Your task to perform on an android device: Search for "razer deathadder" on bestbuy.com, select the first entry, add it to the cart, then select checkout. Image 0: 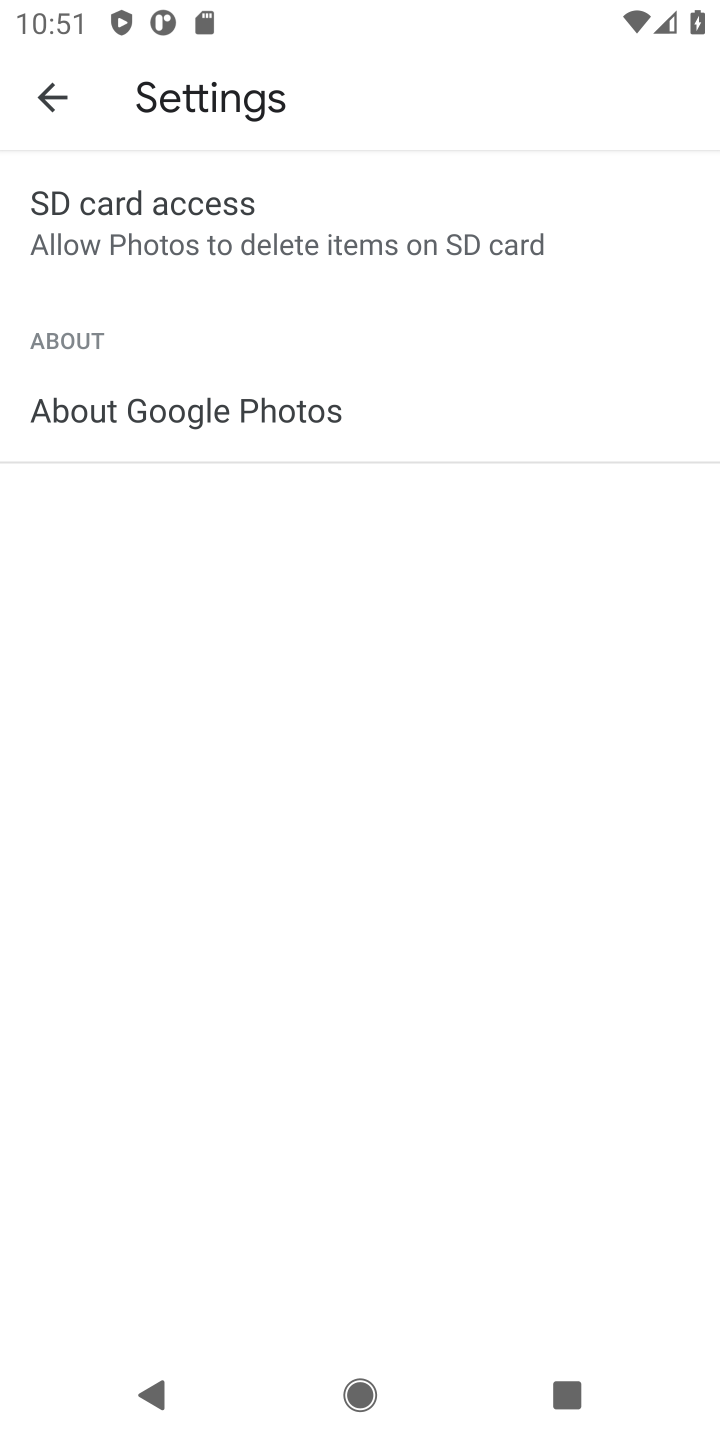
Step 0: press home button
Your task to perform on an android device: Search for "razer deathadder" on bestbuy.com, select the first entry, add it to the cart, then select checkout. Image 1: 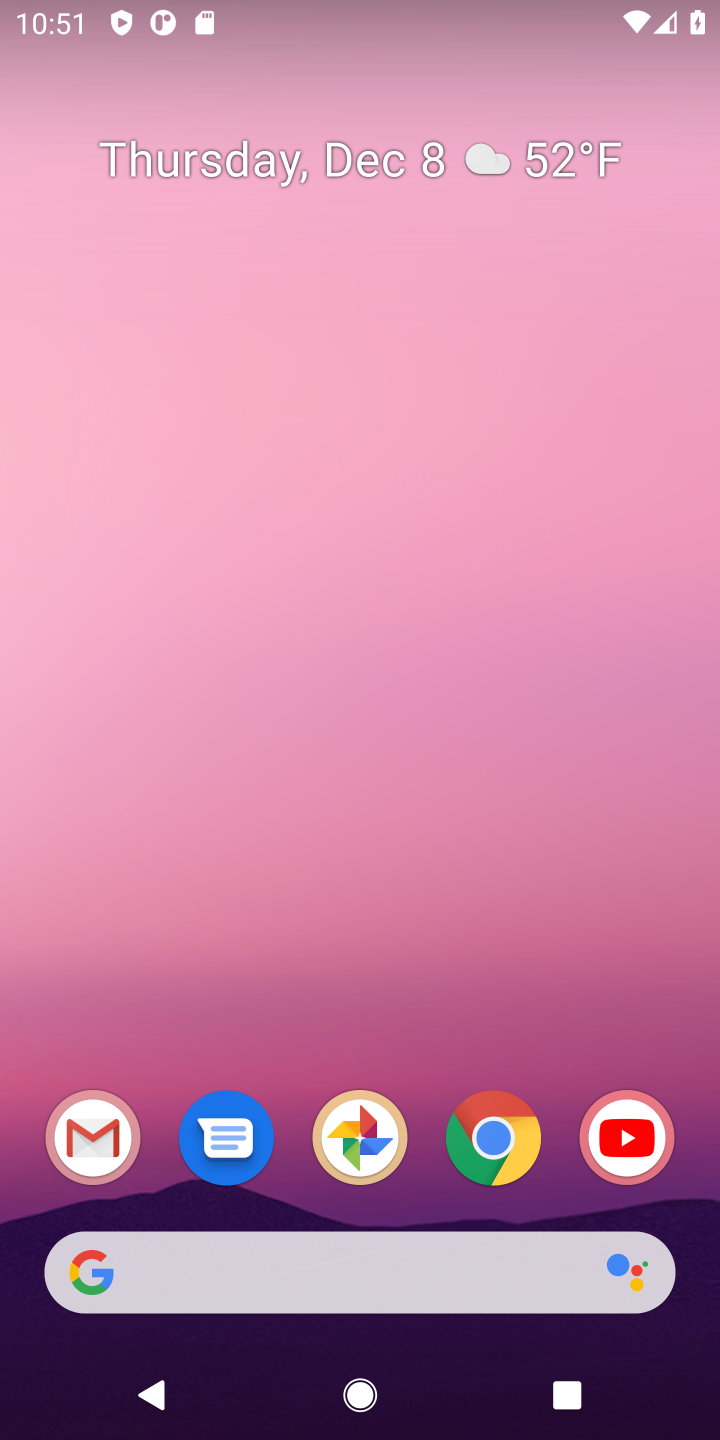
Step 1: click (499, 1118)
Your task to perform on an android device: Search for "razer deathadder" on bestbuy.com, select the first entry, add it to the cart, then select checkout. Image 2: 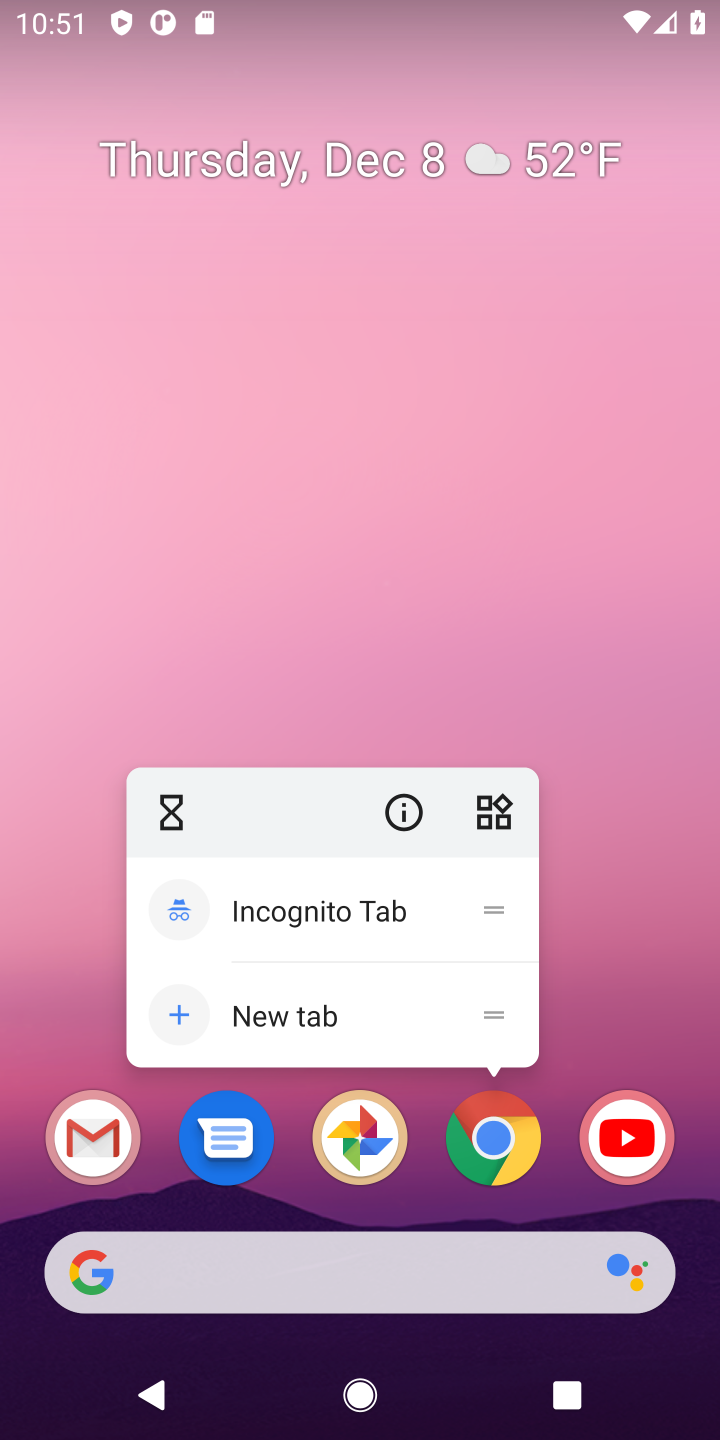
Step 2: click (499, 1118)
Your task to perform on an android device: Search for "razer deathadder" on bestbuy.com, select the first entry, add it to the cart, then select checkout. Image 3: 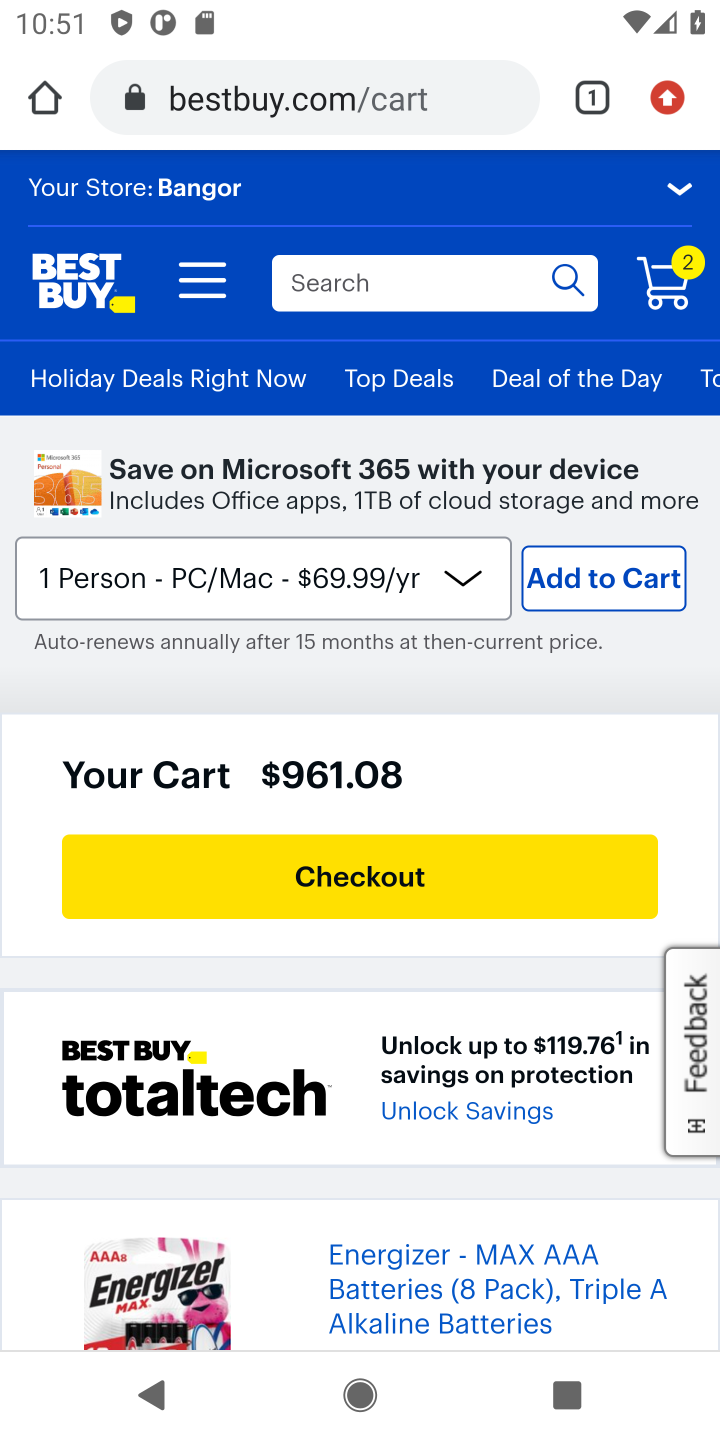
Step 3: click (492, 281)
Your task to perform on an android device: Search for "razer deathadder" on bestbuy.com, select the first entry, add it to the cart, then select checkout. Image 4: 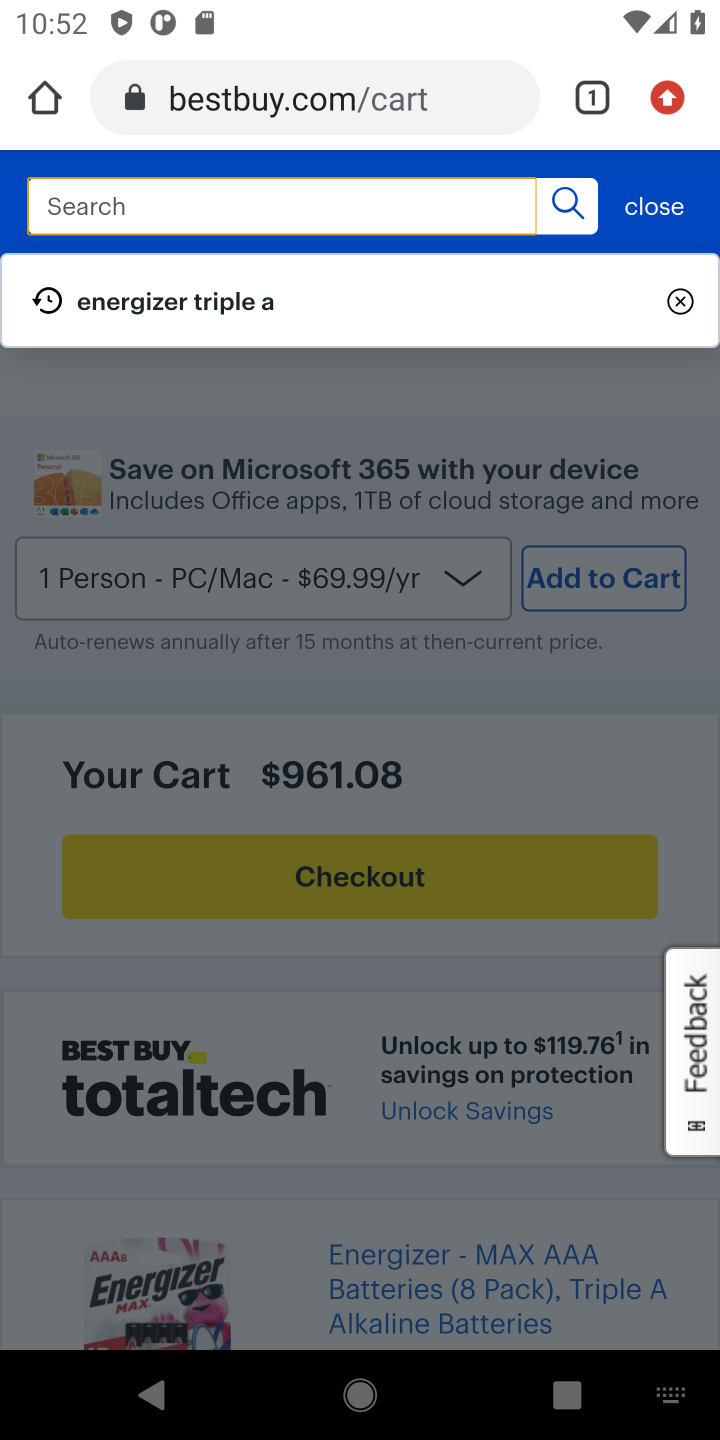
Step 4: type "razer deathadder"
Your task to perform on an android device: Search for "razer deathadder" on bestbuy.com, select the first entry, add it to the cart, then select checkout. Image 5: 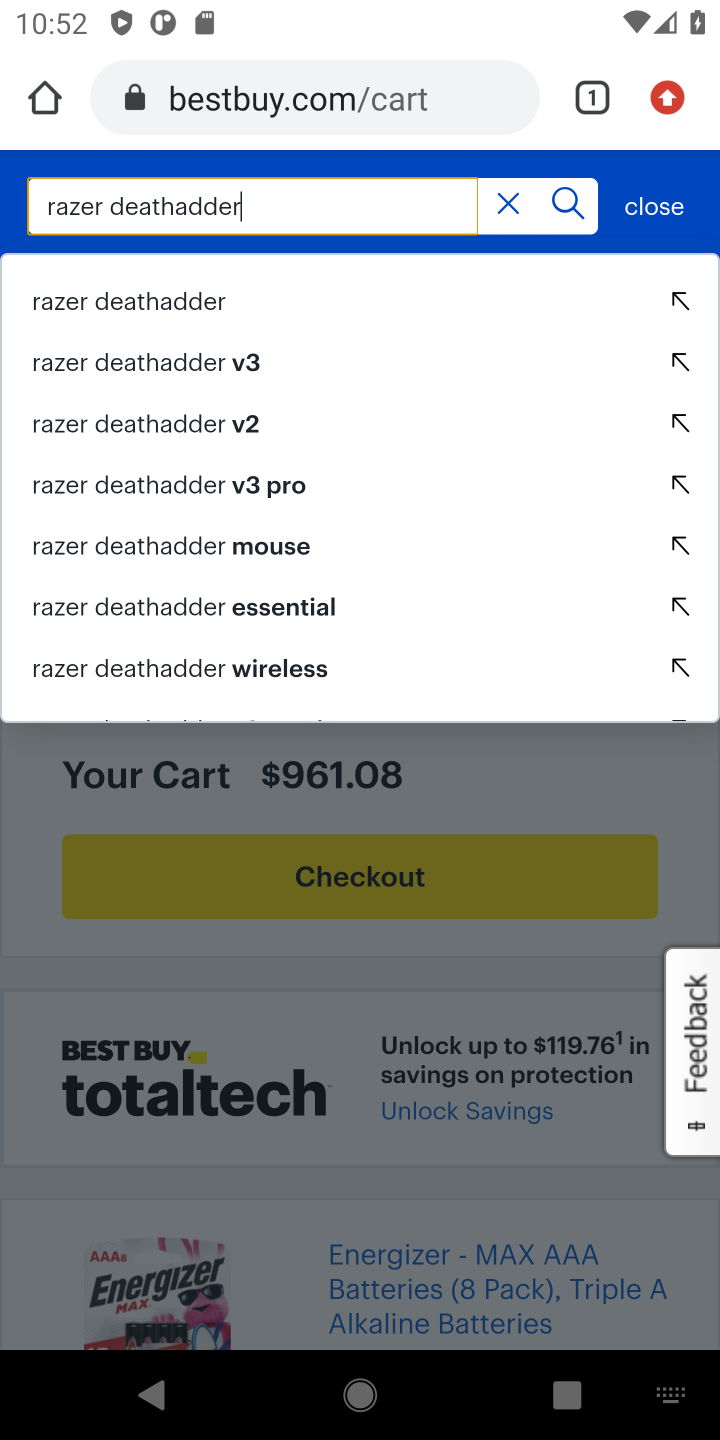
Step 5: click (212, 294)
Your task to perform on an android device: Search for "razer deathadder" on bestbuy.com, select the first entry, add it to the cart, then select checkout. Image 6: 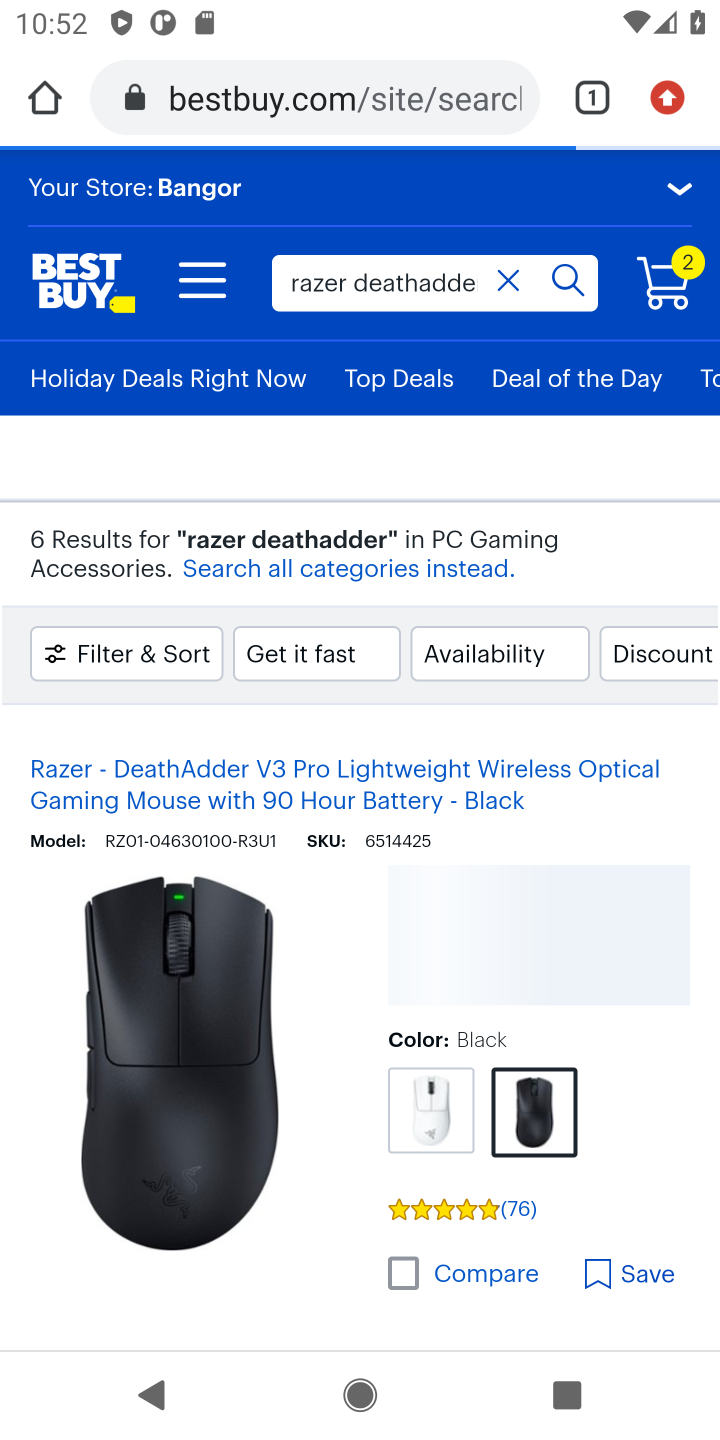
Step 6: click (199, 1007)
Your task to perform on an android device: Search for "razer deathadder" on bestbuy.com, select the first entry, add it to the cart, then select checkout. Image 7: 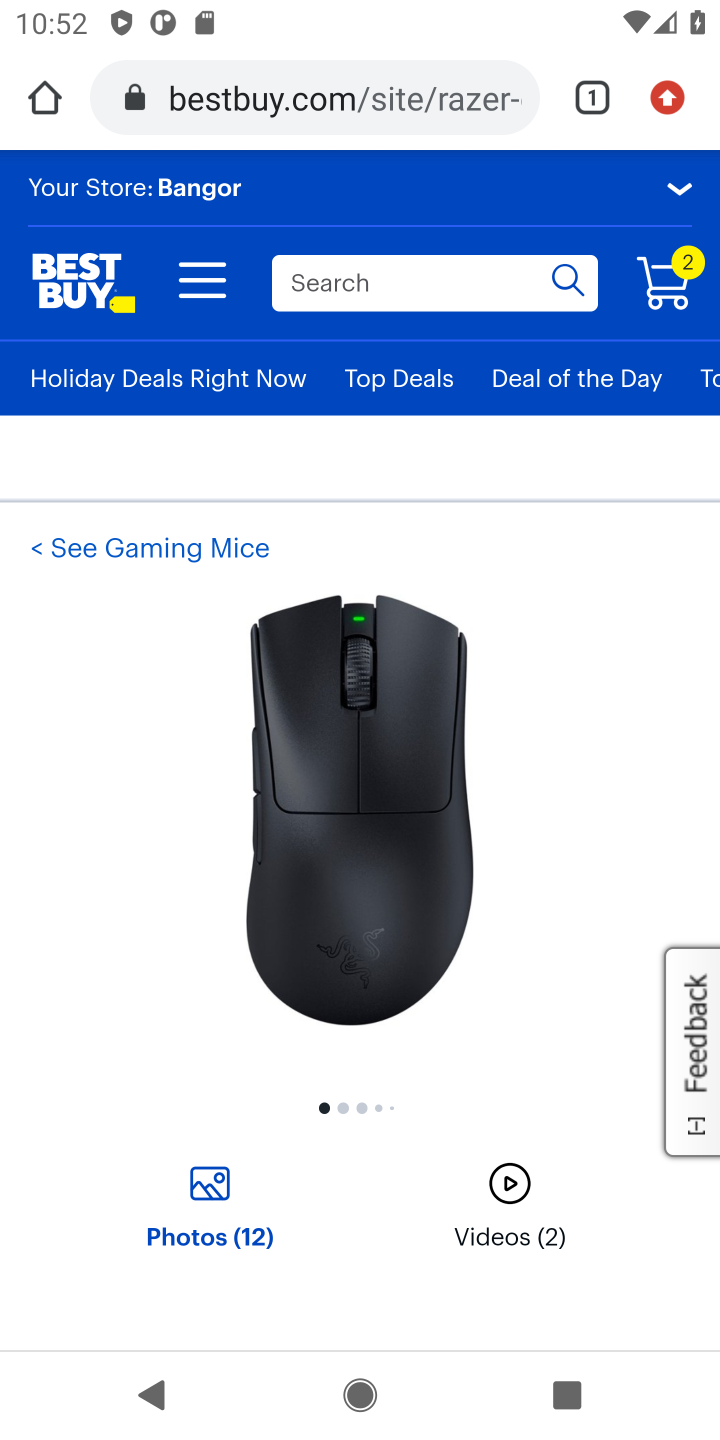
Step 7: drag from (441, 870) to (496, 107)
Your task to perform on an android device: Search for "razer deathadder" on bestbuy.com, select the first entry, add it to the cart, then select checkout. Image 8: 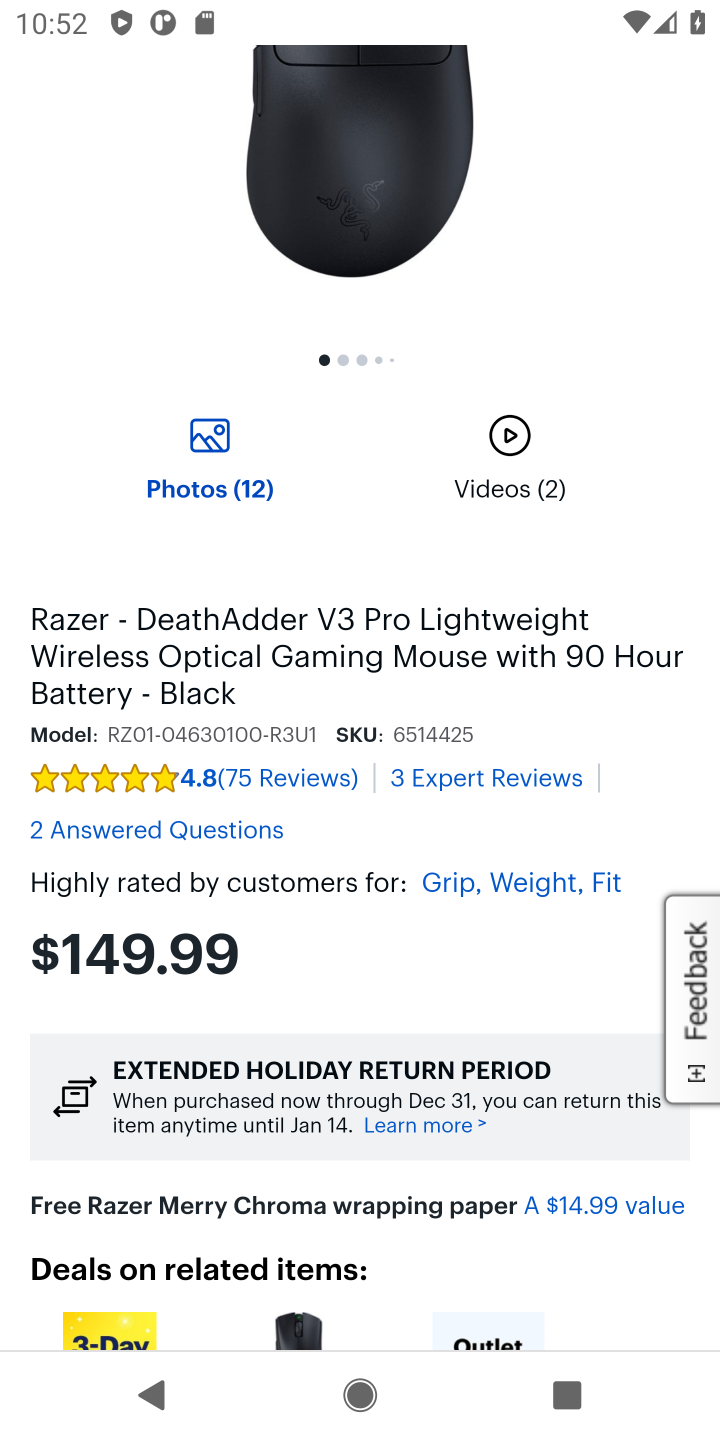
Step 8: drag from (473, 738) to (475, 203)
Your task to perform on an android device: Search for "razer deathadder" on bestbuy.com, select the first entry, add it to the cart, then select checkout. Image 9: 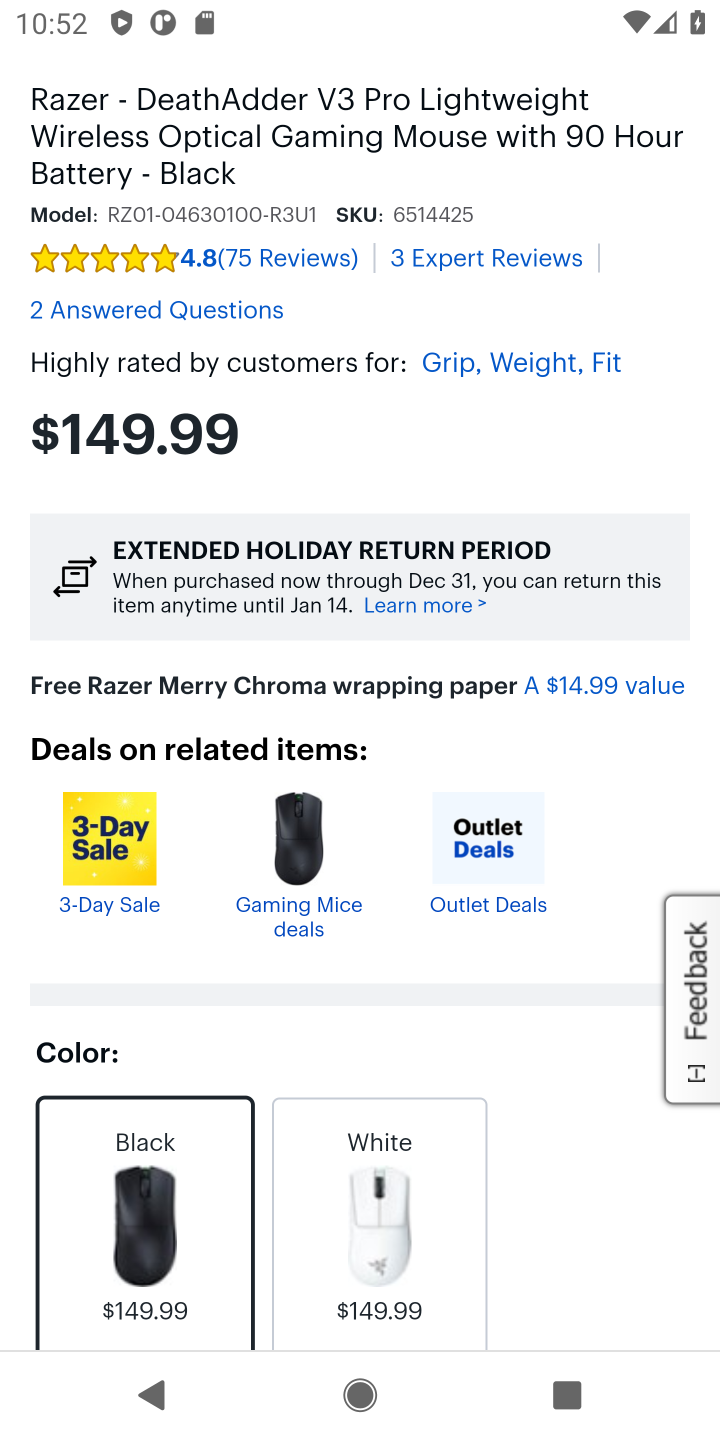
Step 9: drag from (544, 1157) to (442, 382)
Your task to perform on an android device: Search for "razer deathadder" on bestbuy.com, select the first entry, add it to the cart, then select checkout. Image 10: 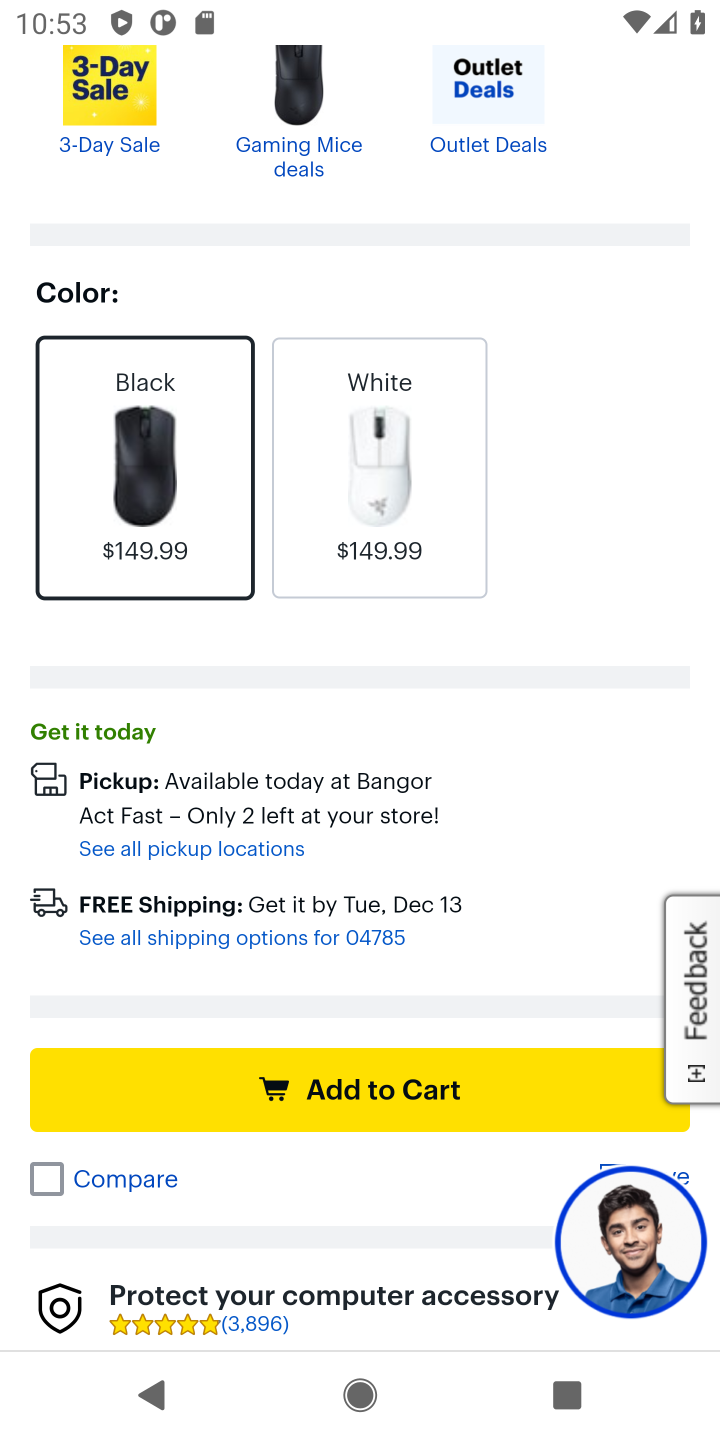
Step 10: click (368, 1082)
Your task to perform on an android device: Search for "razer deathadder" on bestbuy.com, select the first entry, add it to the cart, then select checkout. Image 11: 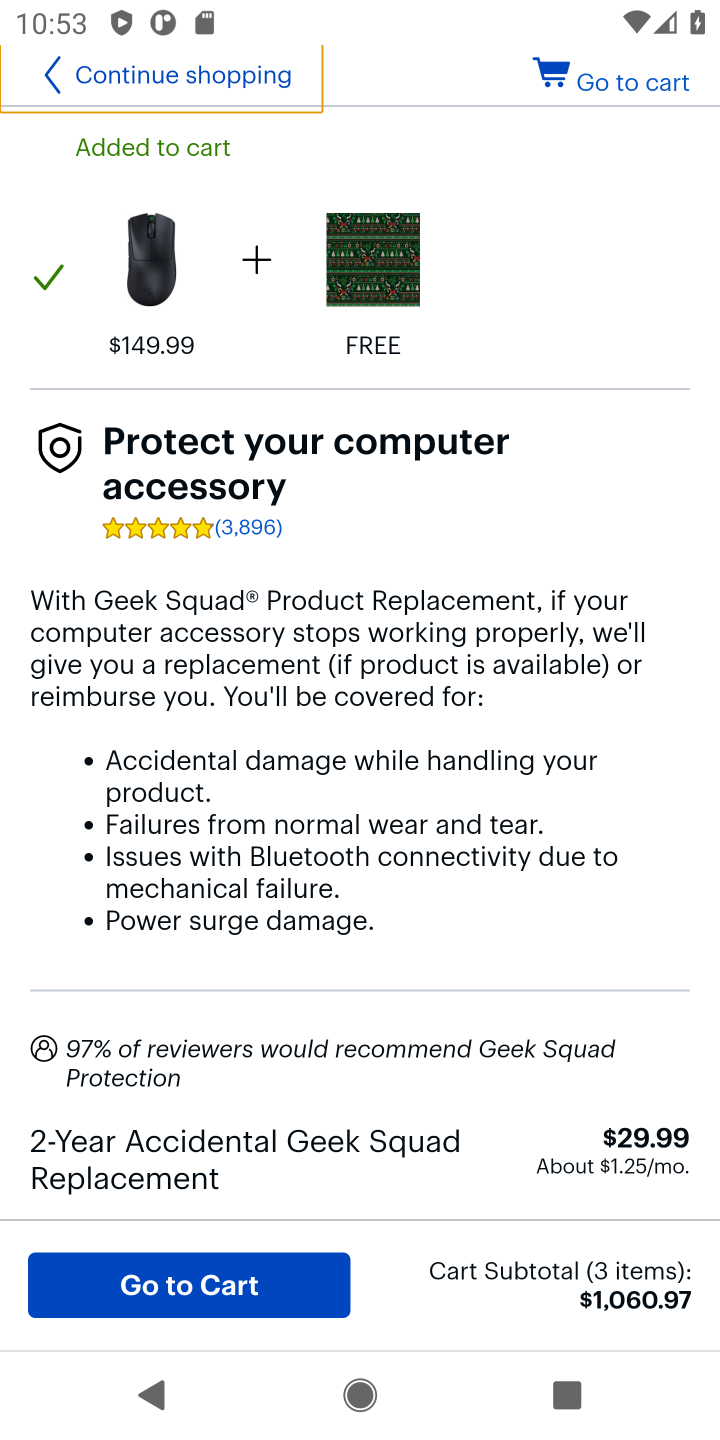
Step 11: click (222, 1273)
Your task to perform on an android device: Search for "razer deathadder" on bestbuy.com, select the first entry, add it to the cart, then select checkout. Image 12: 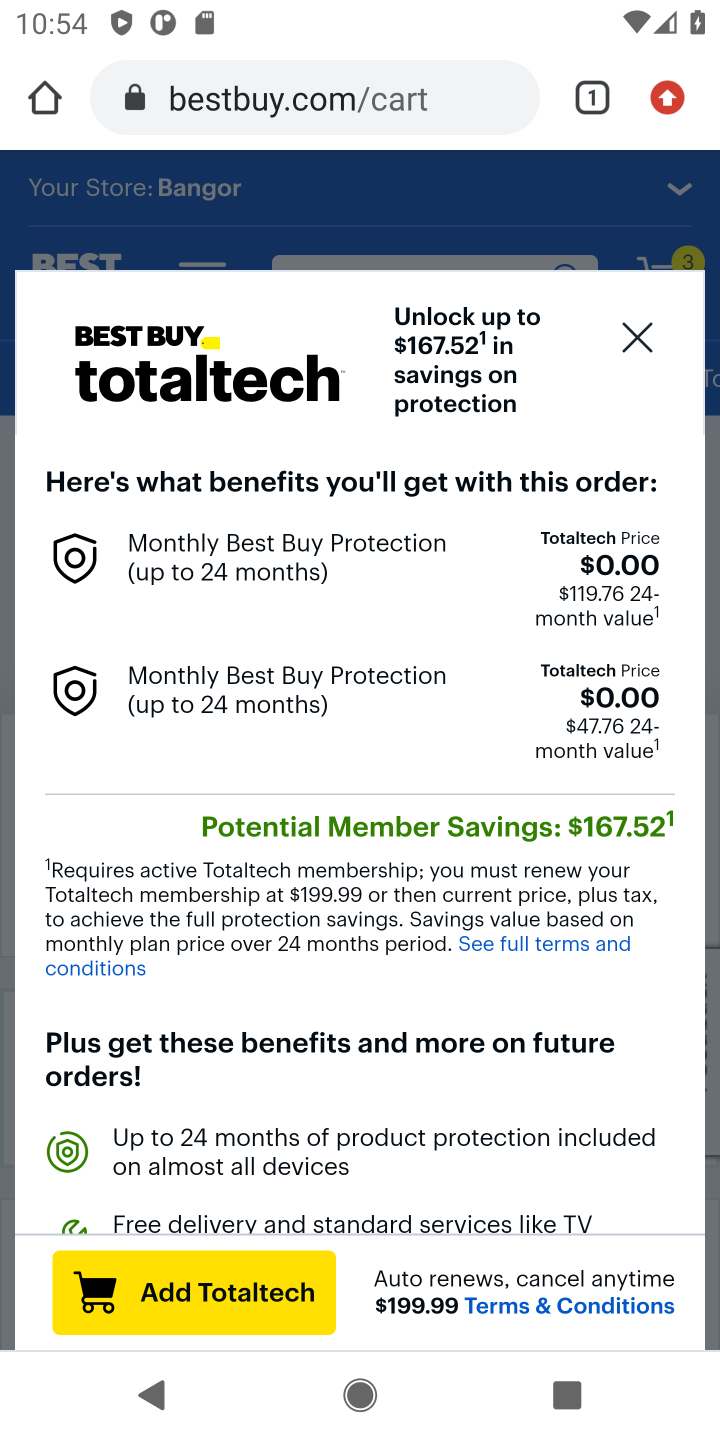
Step 12: click (640, 330)
Your task to perform on an android device: Search for "razer deathadder" on bestbuy.com, select the first entry, add it to the cart, then select checkout. Image 13: 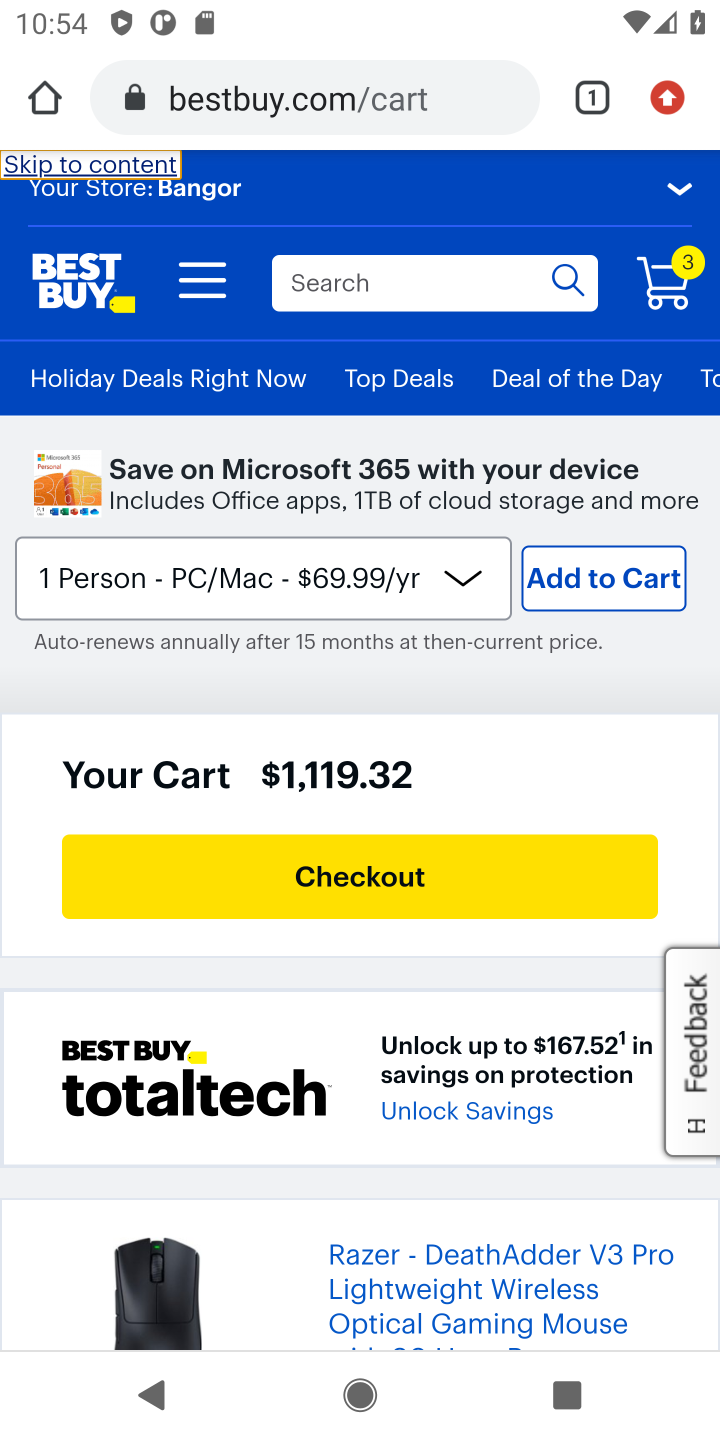
Step 13: click (393, 875)
Your task to perform on an android device: Search for "razer deathadder" on bestbuy.com, select the first entry, add it to the cart, then select checkout. Image 14: 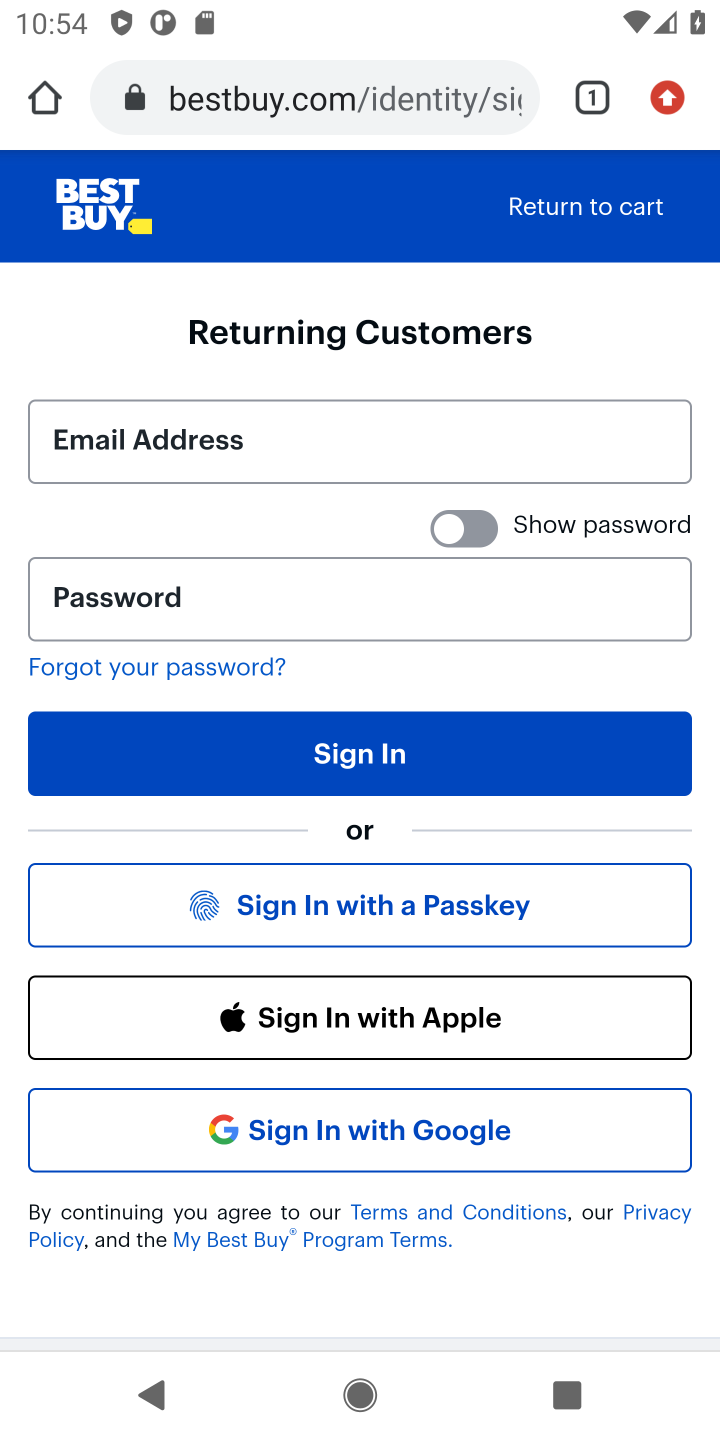
Step 14: task complete